Your task to perform on an android device: set an alarm Image 0: 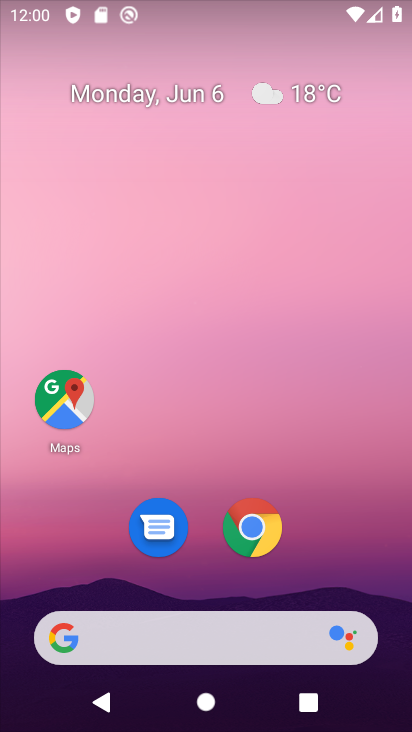
Step 0: drag from (212, 612) to (126, 18)
Your task to perform on an android device: set an alarm Image 1: 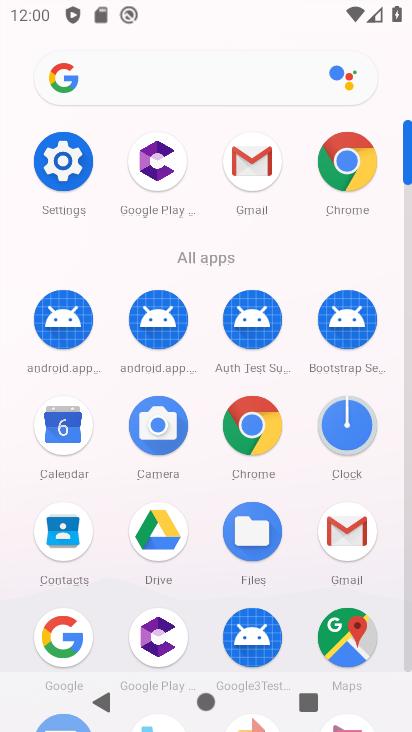
Step 1: click (348, 443)
Your task to perform on an android device: set an alarm Image 2: 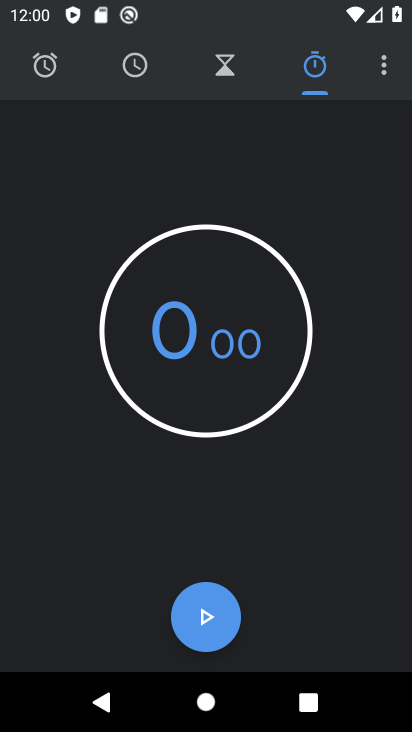
Step 2: click (57, 60)
Your task to perform on an android device: set an alarm Image 3: 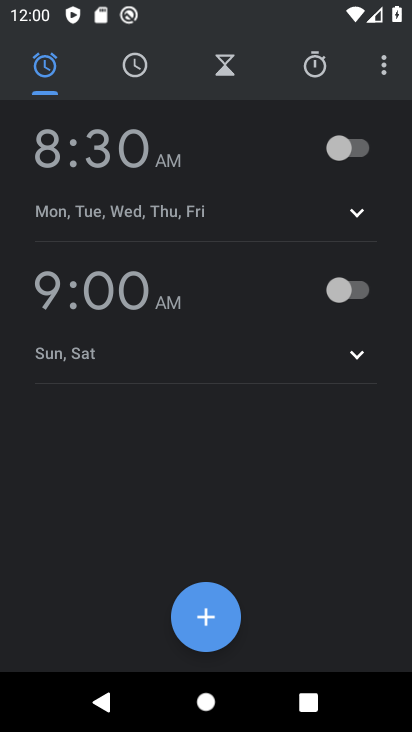
Step 3: click (205, 607)
Your task to perform on an android device: set an alarm Image 4: 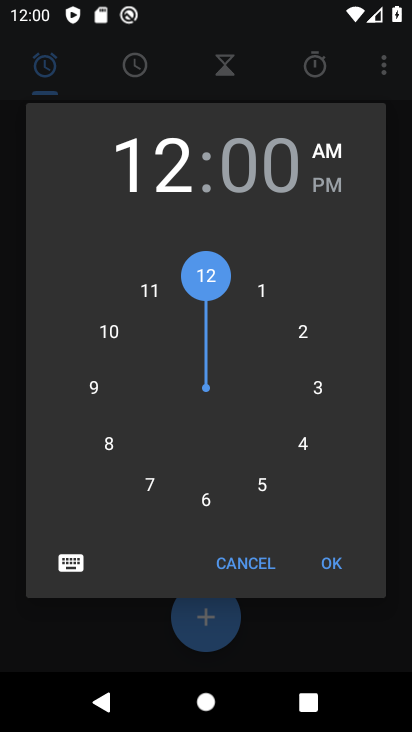
Step 4: click (338, 548)
Your task to perform on an android device: set an alarm Image 5: 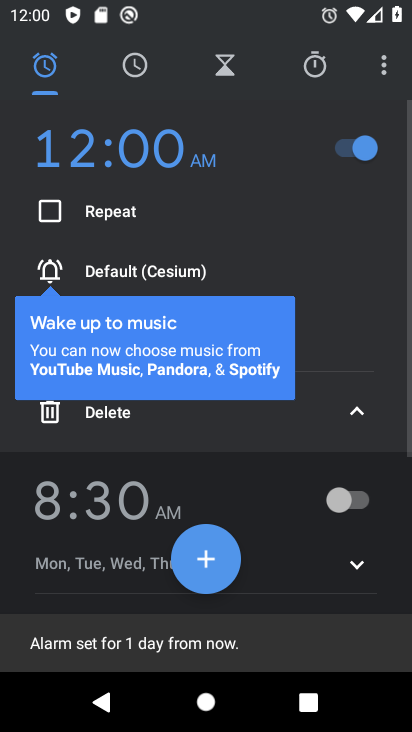
Step 5: task complete